Your task to perform on an android device: turn off notifications settings in the gmail app Image 0: 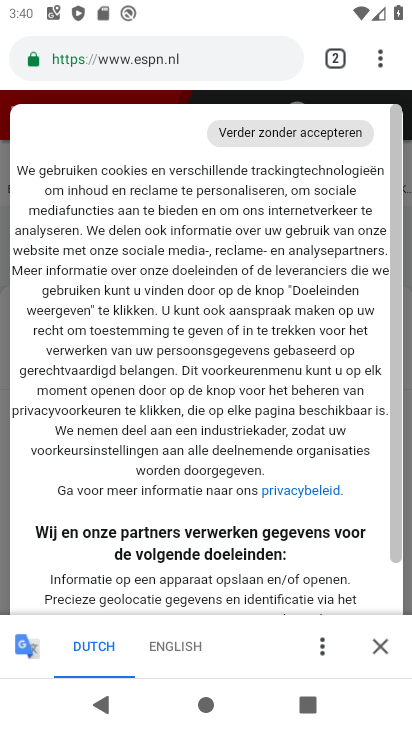
Step 0: press home button
Your task to perform on an android device: turn off notifications settings in the gmail app Image 1: 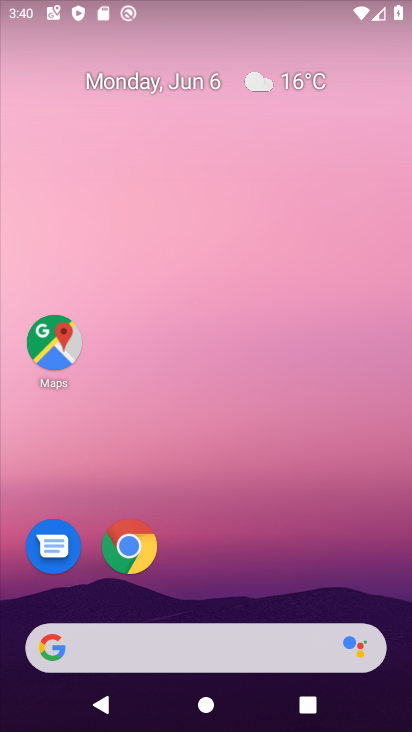
Step 1: drag from (309, 579) to (323, 40)
Your task to perform on an android device: turn off notifications settings in the gmail app Image 2: 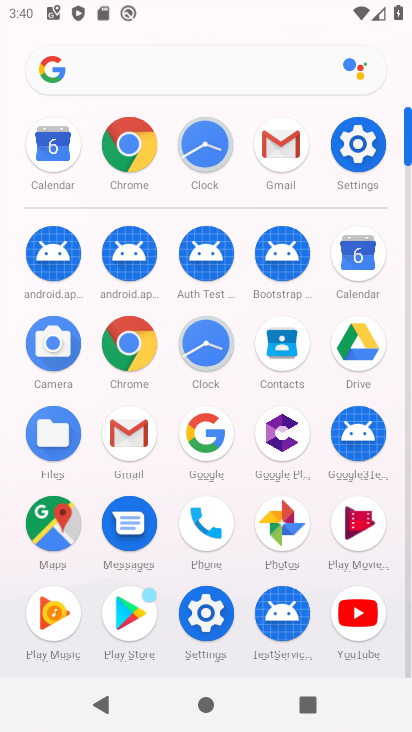
Step 2: click (275, 146)
Your task to perform on an android device: turn off notifications settings in the gmail app Image 3: 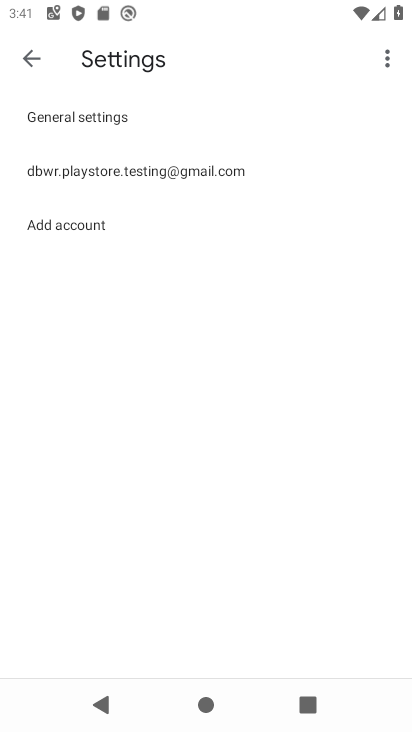
Step 3: click (23, 50)
Your task to perform on an android device: turn off notifications settings in the gmail app Image 4: 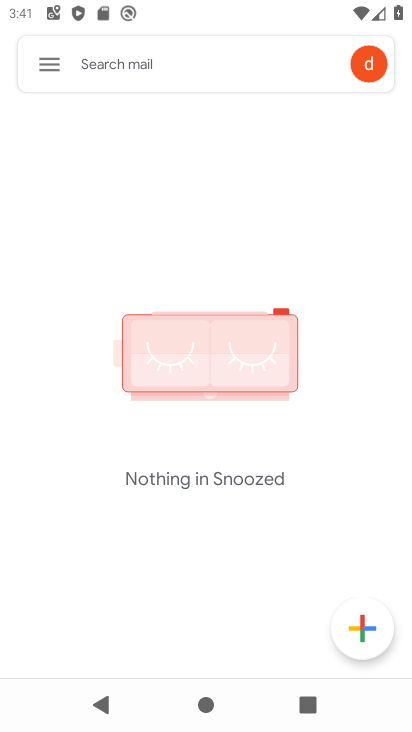
Step 4: click (37, 67)
Your task to perform on an android device: turn off notifications settings in the gmail app Image 5: 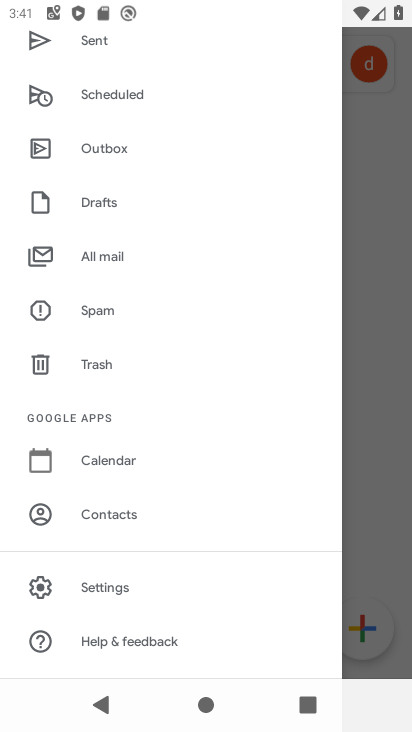
Step 5: click (111, 586)
Your task to perform on an android device: turn off notifications settings in the gmail app Image 6: 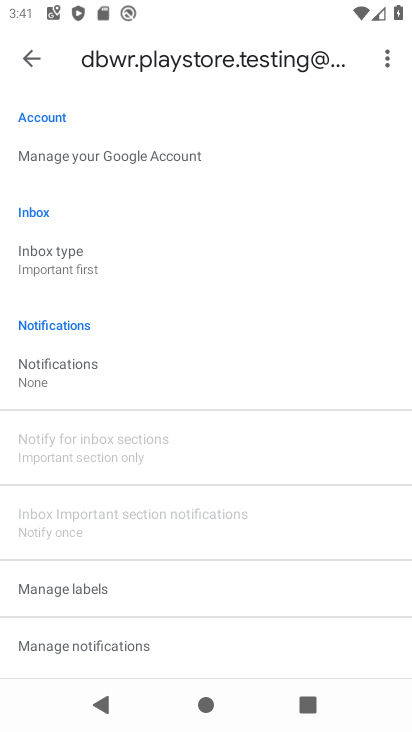
Step 6: click (55, 364)
Your task to perform on an android device: turn off notifications settings in the gmail app Image 7: 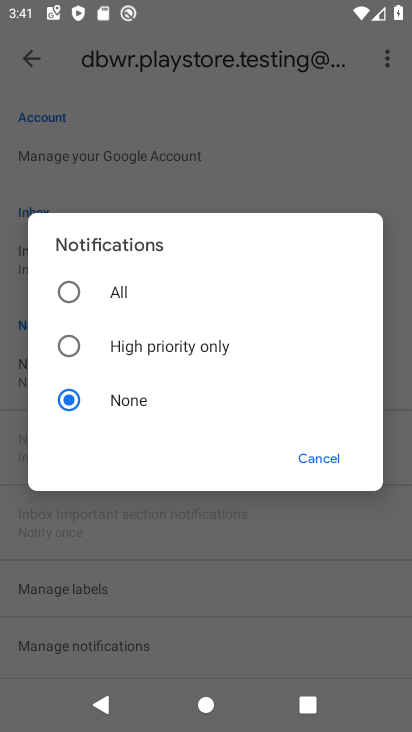
Step 7: task complete